Your task to perform on an android device: Show me popular videos on Youtube Image 0: 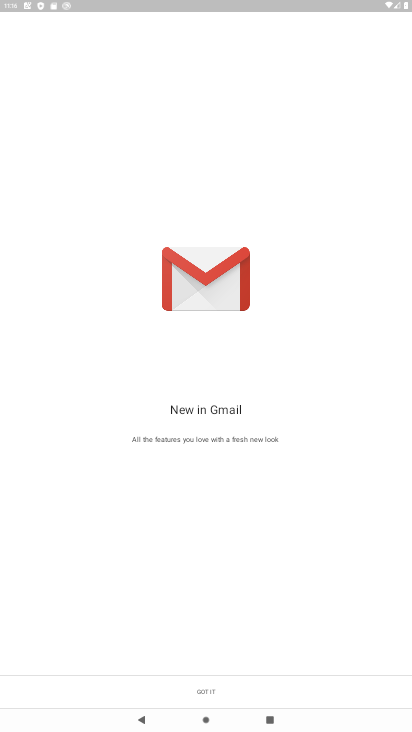
Step 0: press home button
Your task to perform on an android device: Show me popular videos on Youtube Image 1: 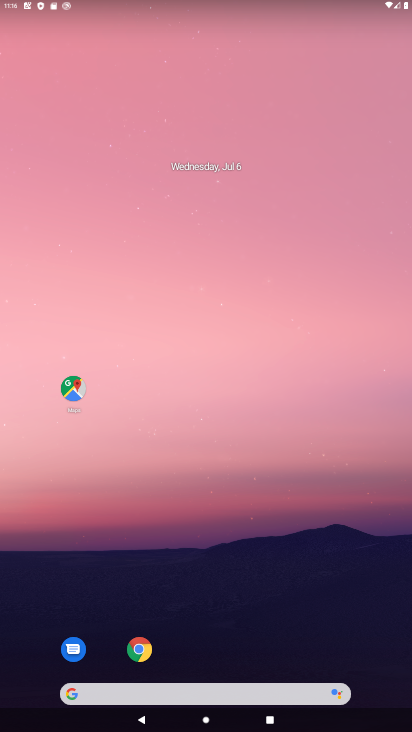
Step 1: drag from (232, 635) to (261, 16)
Your task to perform on an android device: Show me popular videos on Youtube Image 2: 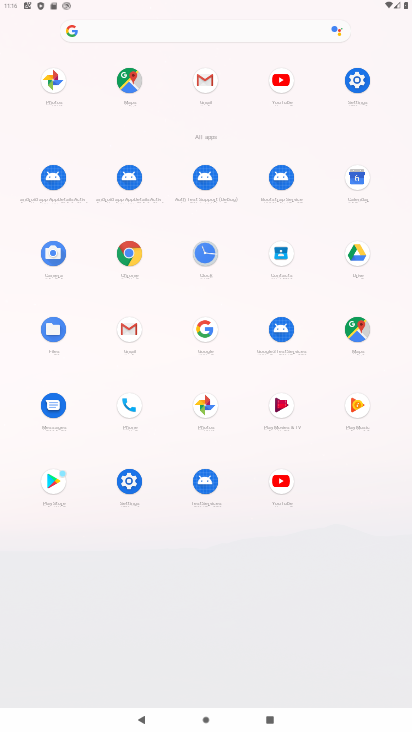
Step 2: click (293, 489)
Your task to perform on an android device: Show me popular videos on Youtube Image 3: 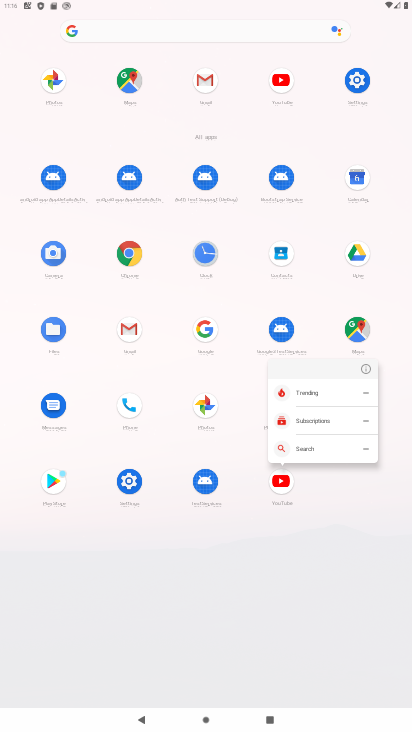
Step 3: click (284, 488)
Your task to perform on an android device: Show me popular videos on Youtube Image 4: 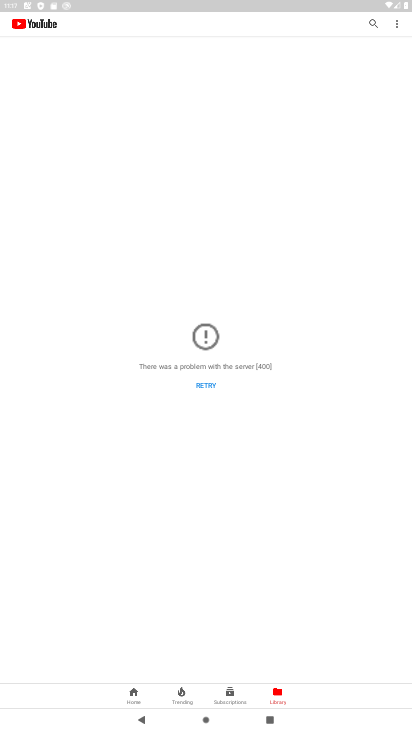
Step 4: task complete